Your task to perform on an android device: Turn off the flashlight Image 0: 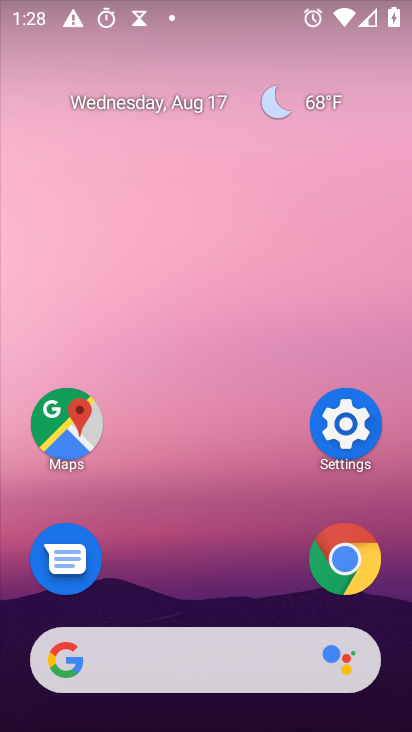
Step 0: drag from (256, 4) to (177, 440)
Your task to perform on an android device: Turn off the flashlight Image 1: 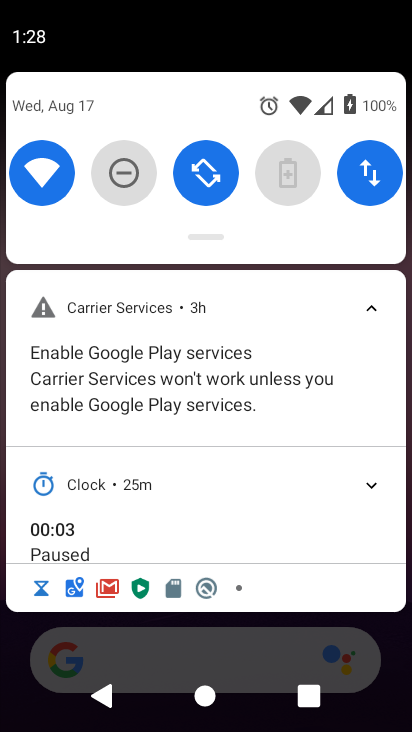
Step 1: task complete